Your task to perform on an android device: add a label to a message in the gmail app Image 0: 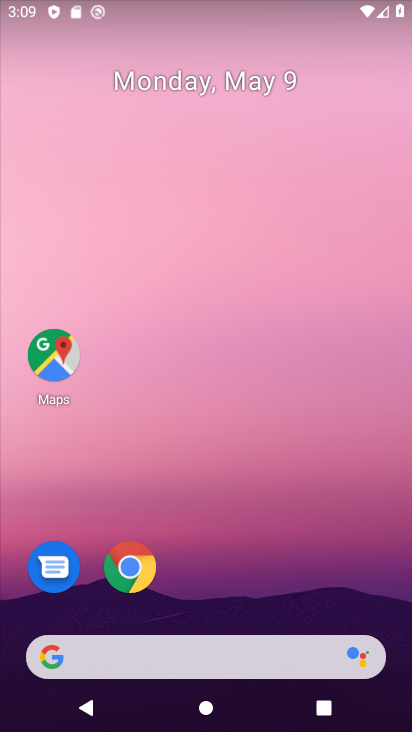
Step 0: click (190, 479)
Your task to perform on an android device: add a label to a message in the gmail app Image 1: 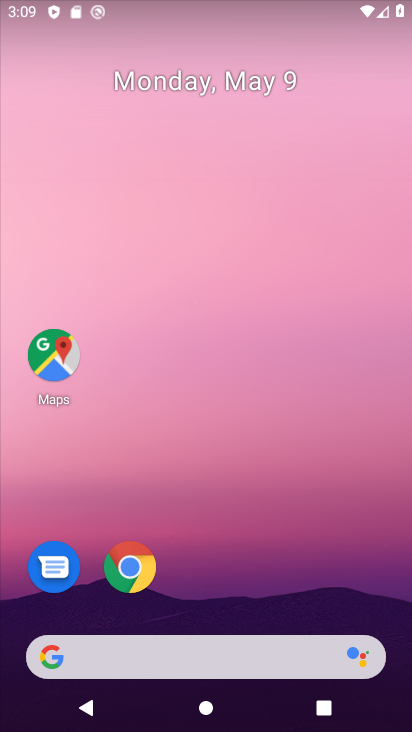
Step 1: drag from (202, 618) to (259, 350)
Your task to perform on an android device: add a label to a message in the gmail app Image 2: 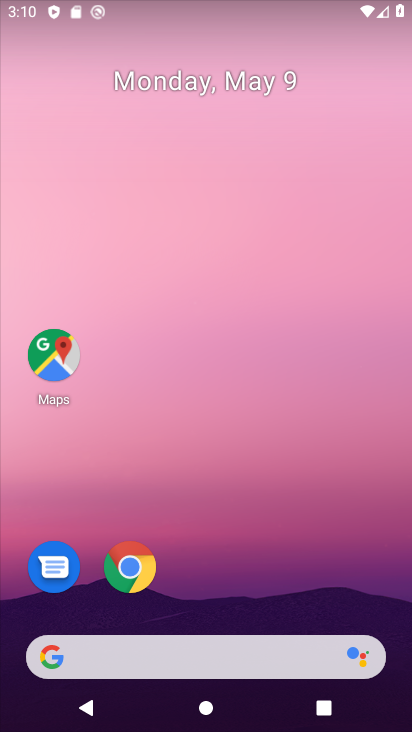
Step 2: drag from (234, 636) to (308, 350)
Your task to perform on an android device: add a label to a message in the gmail app Image 3: 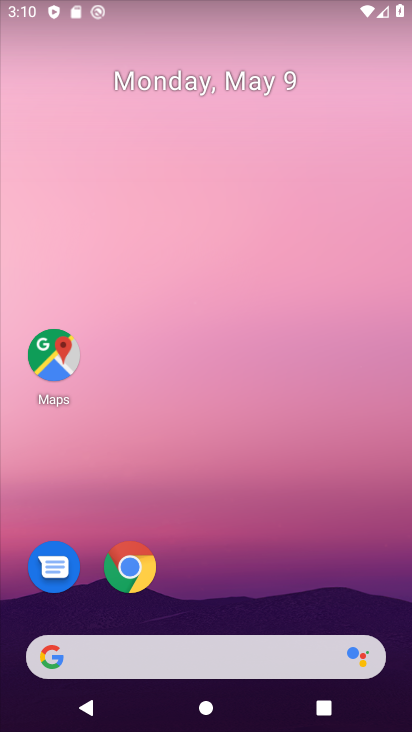
Step 3: drag from (205, 627) to (248, 394)
Your task to perform on an android device: add a label to a message in the gmail app Image 4: 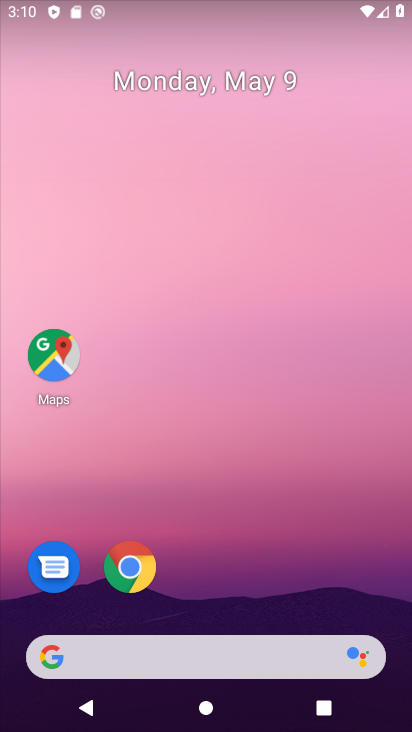
Step 4: drag from (193, 618) to (348, 9)
Your task to perform on an android device: add a label to a message in the gmail app Image 5: 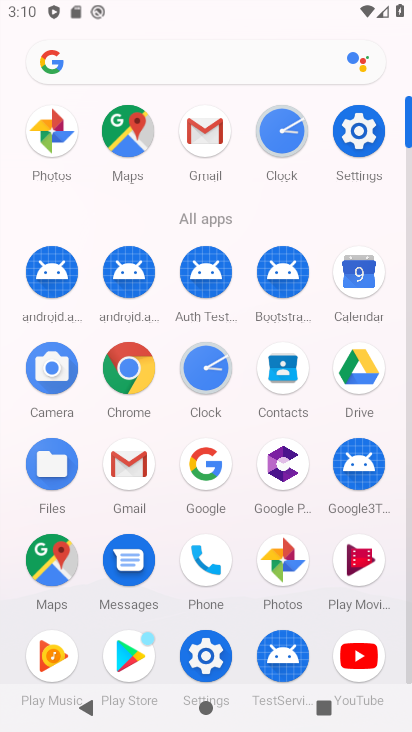
Step 5: click (128, 469)
Your task to perform on an android device: add a label to a message in the gmail app Image 6: 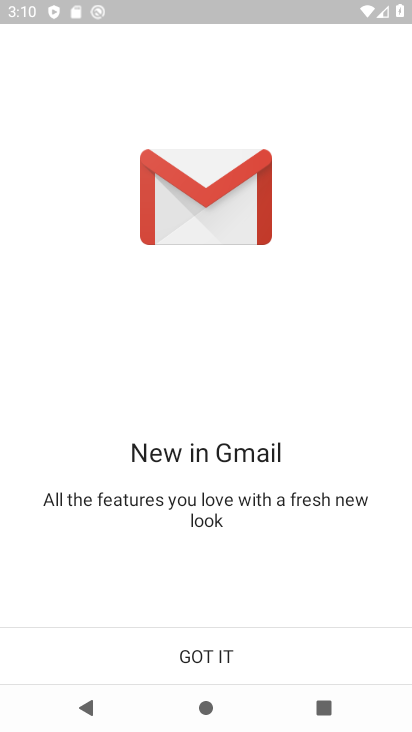
Step 6: click (238, 644)
Your task to perform on an android device: add a label to a message in the gmail app Image 7: 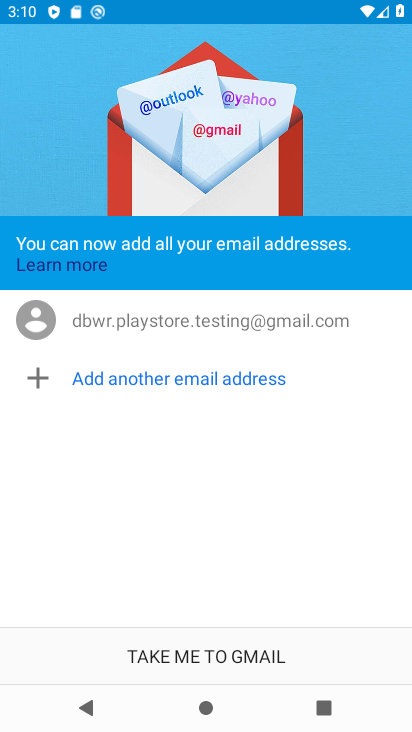
Step 7: click (238, 644)
Your task to perform on an android device: add a label to a message in the gmail app Image 8: 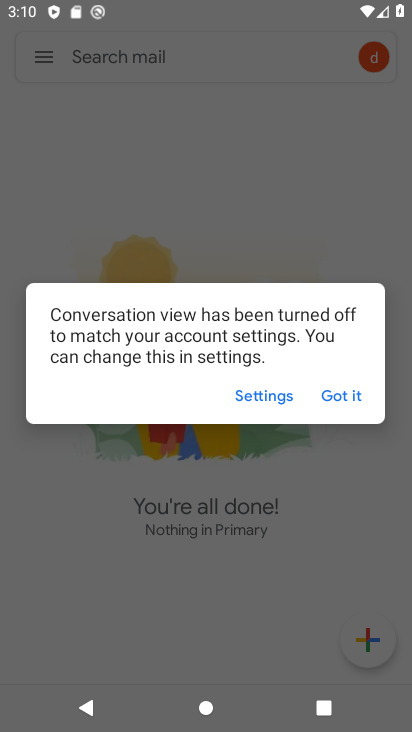
Step 8: click (335, 383)
Your task to perform on an android device: add a label to a message in the gmail app Image 9: 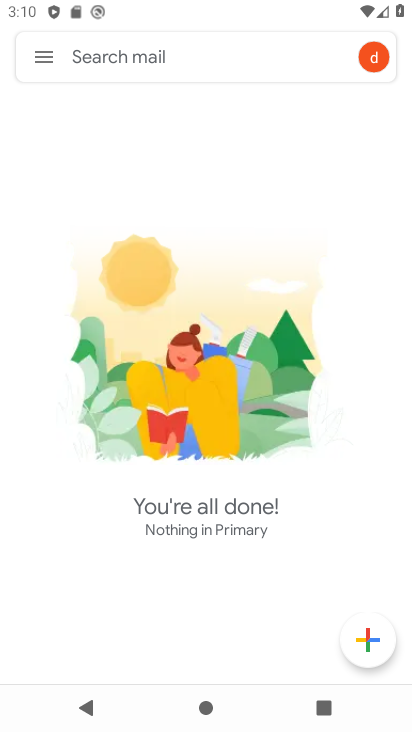
Step 9: click (38, 68)
Your task to perform on an android device: add a label to a message in the gmail app Image 10: 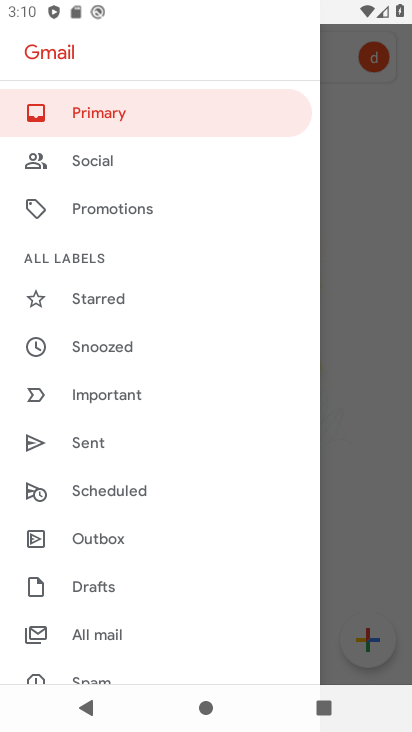
Step 10: click (130, 624)
Your task to perform on an android device: add a label to a message in the gmail app Image 11: 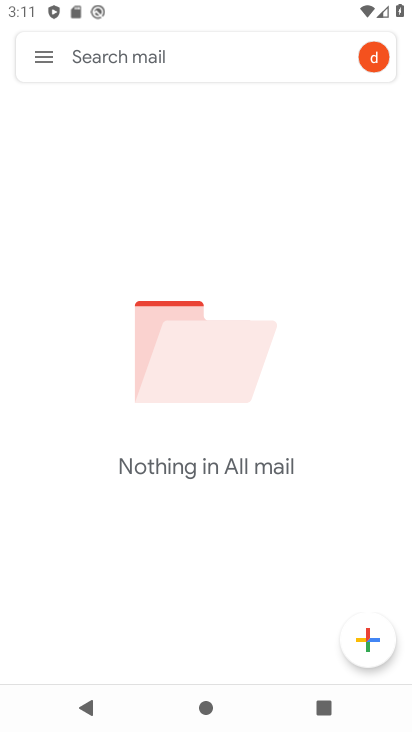
Step 11: task complete